Your task to perform on an android device: Go to internet settings Image 0: 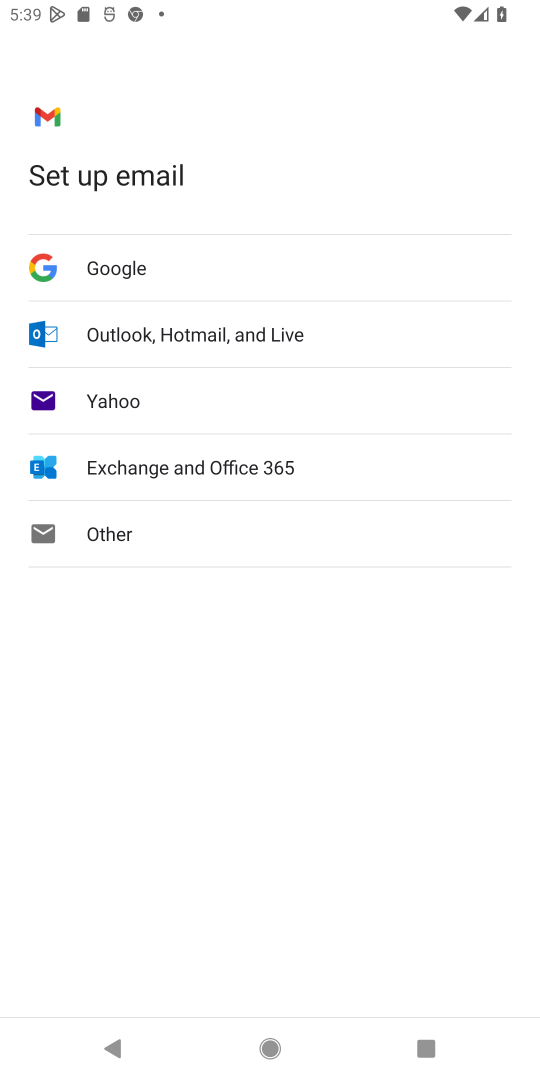
Step 0: press home button
Your task to perform on an android device: Go to internet settings Image 1: 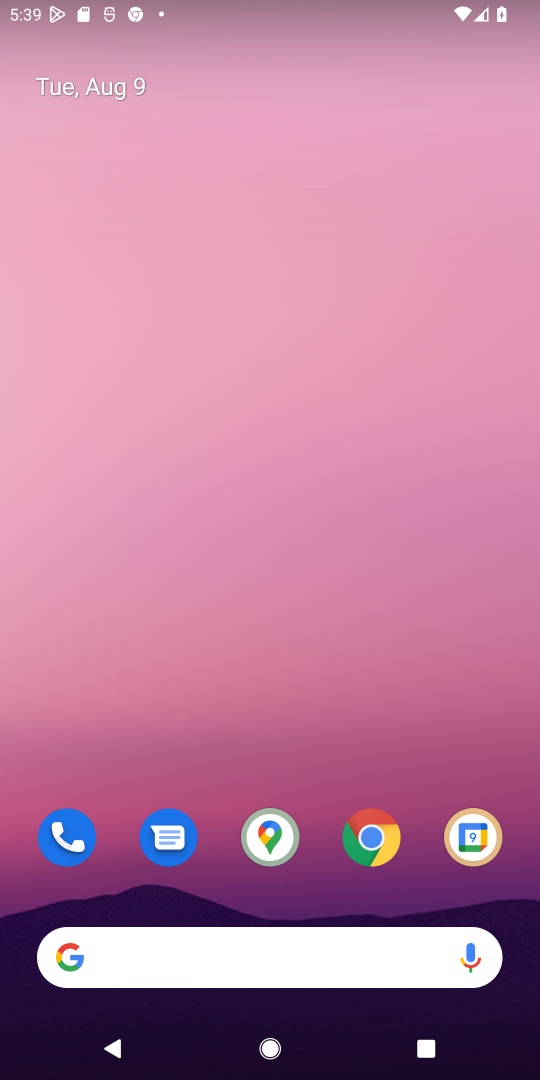
Step 1: drag from (234, 739) to (324, 196)
Your task to perform on an android device: Go to internet settings Image 2: 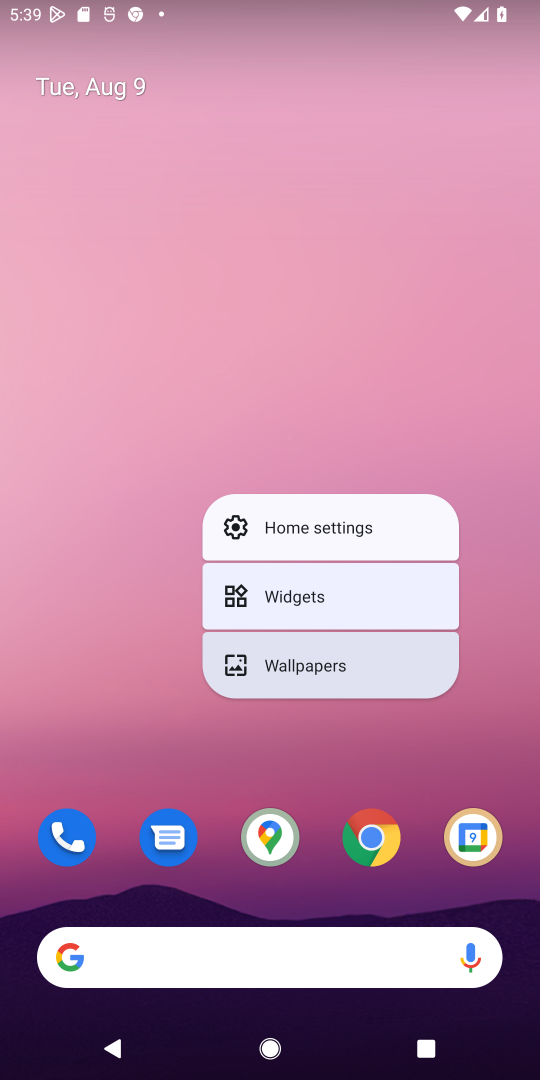
Step 2: click (353, 303)
Your task to perform on an android device: Go to internet settings Image 3: 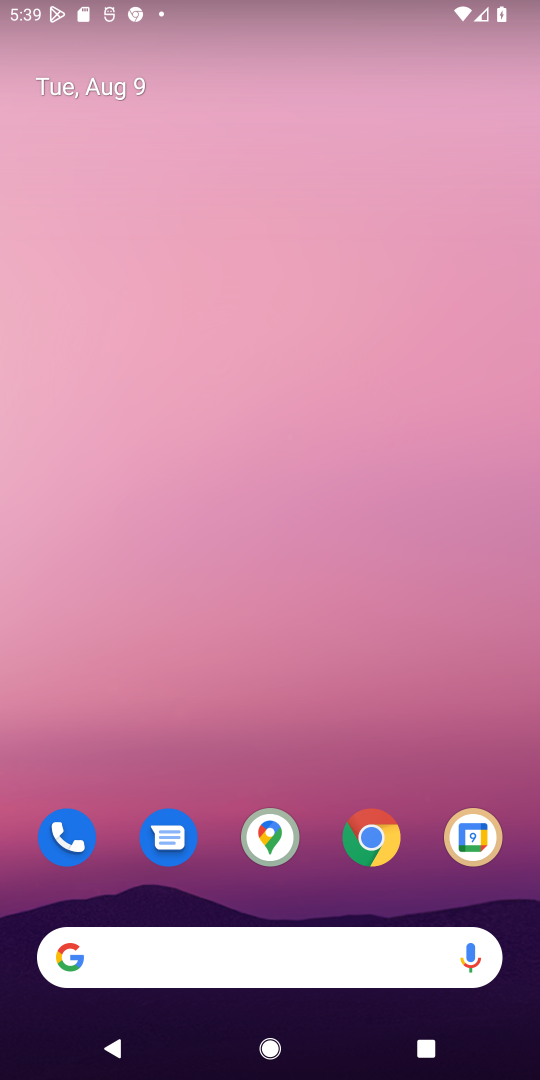
Step 3: drag from (245, 790) to (380, 280)
Your task to perform on an android device: Go to internet settings Image 4: 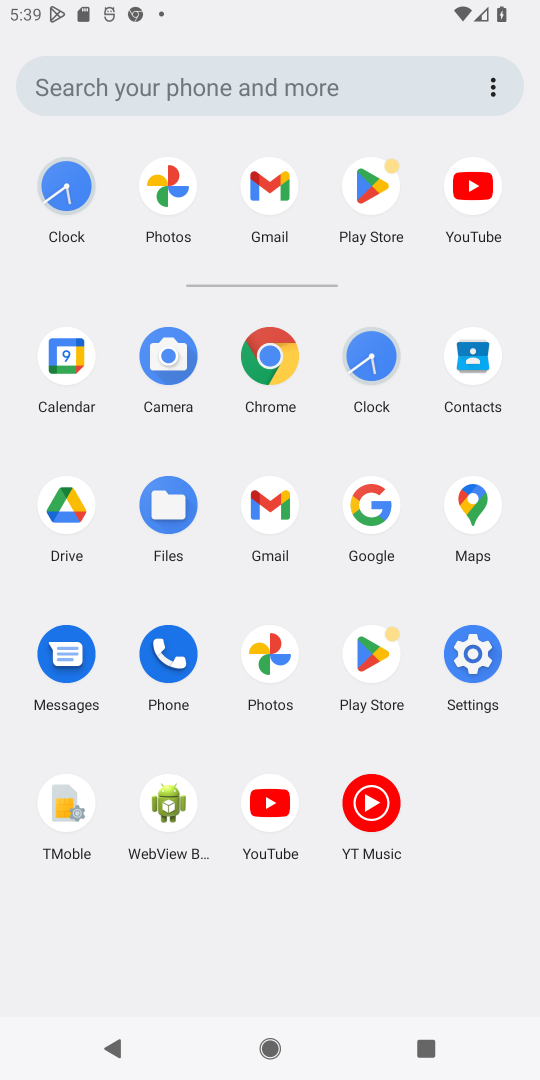
Step 4: click (469, 643)
Your task to perform on an android device: Go to internet settings Image 5: 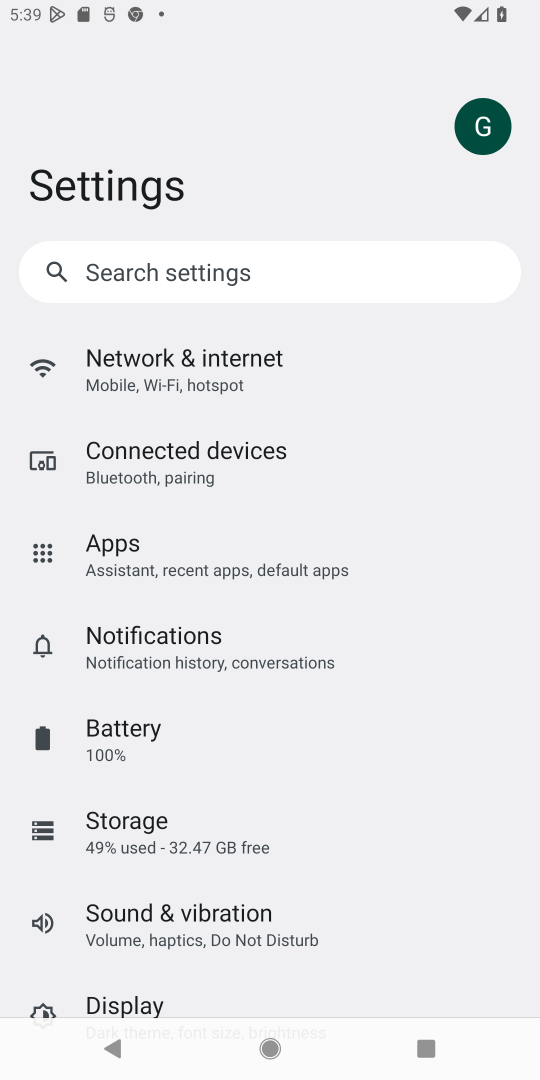
Step 5: click (289, 364)
Your task to perform on an android device: Go to internet settings Image 6: 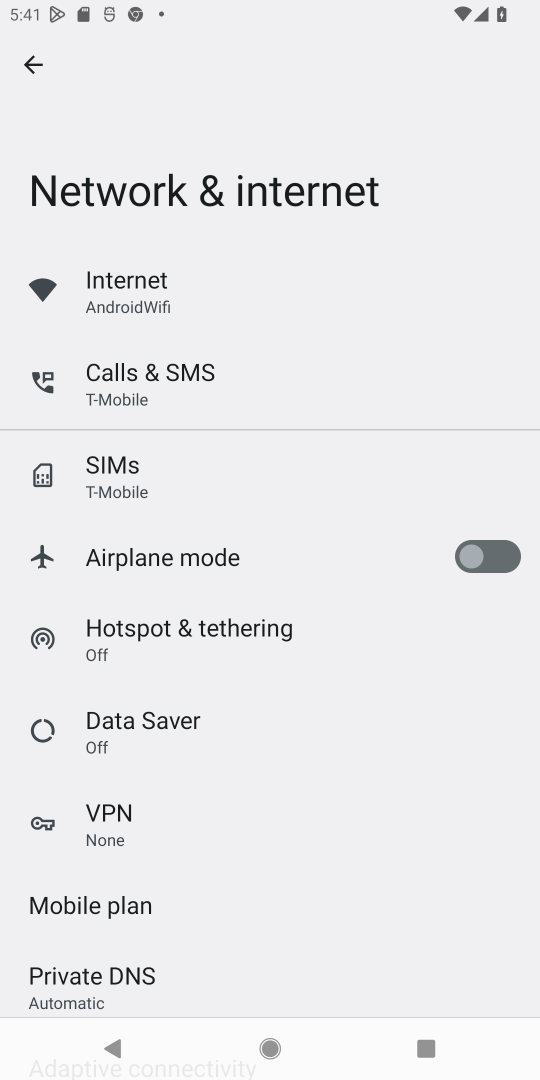
Step 6: task complete